Your task to perform on an android device: change the clock display to analog Image 0: 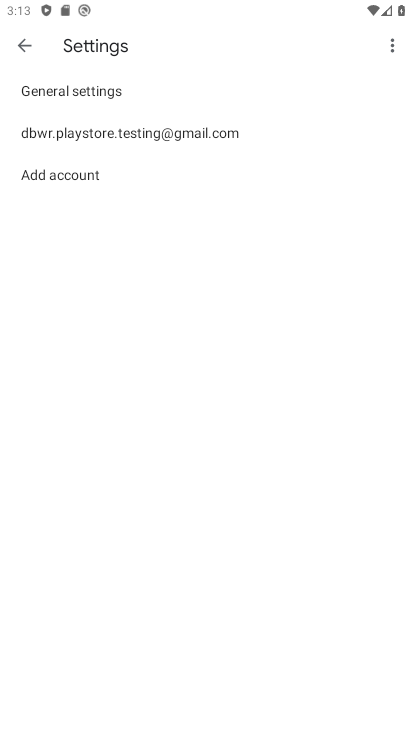
Step 0: press home button
Your task to perform on an android device: change the clock display to analog Image 1: 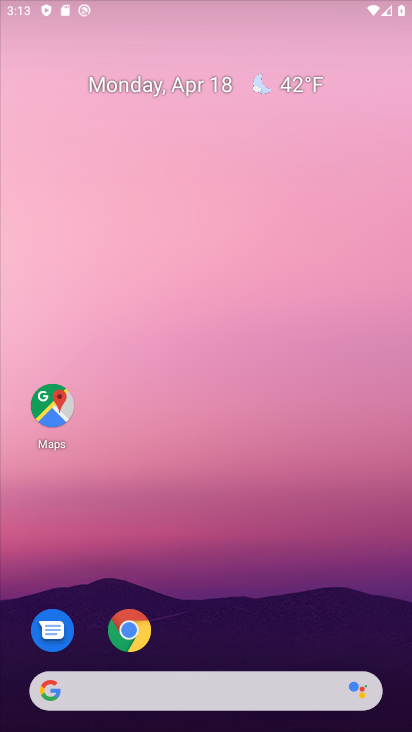
Step 1: drag from (252, 592) to (308, 329)
Your task to perform on an android device: change the clock display to analog Image 2: 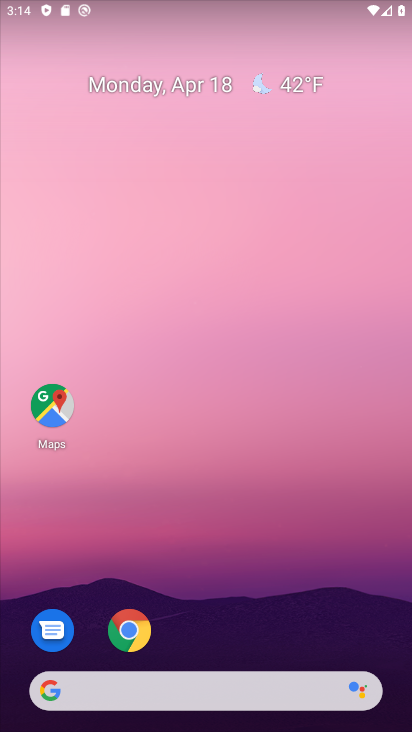
Step 2: drag from (295, 572) to (344, 229)
Your task to perform on an android device: change the clock display to analog Image 3: 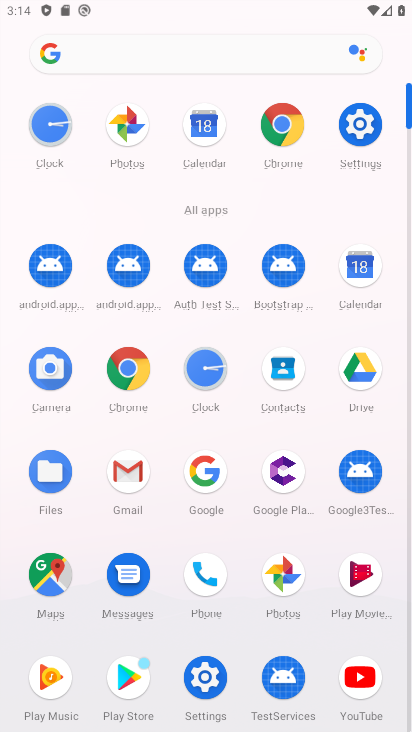
Step 3: click (36, 119)
Your task to perform on an android device: change the clock display to analog Image 4: 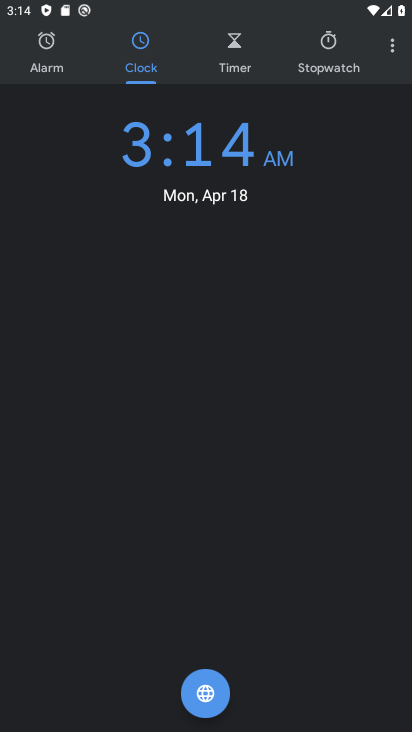
Step 4: click (388, 51)
Your task to perform on an android device: change the clock display to analog Image 5: 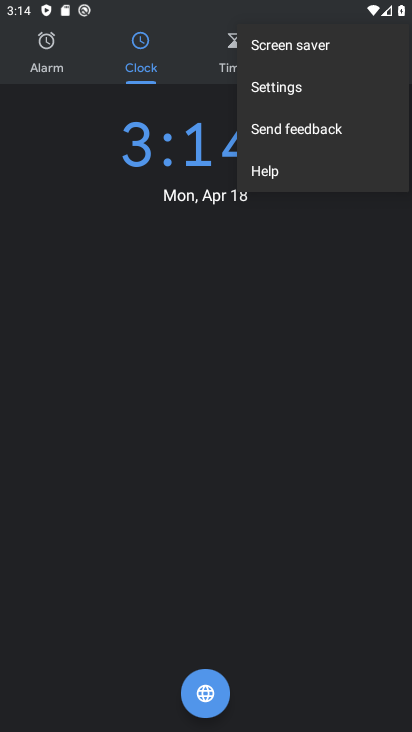
Step 5: click (290, 81)
Your task to perform on an android device: change the clock display to analog Image 6: 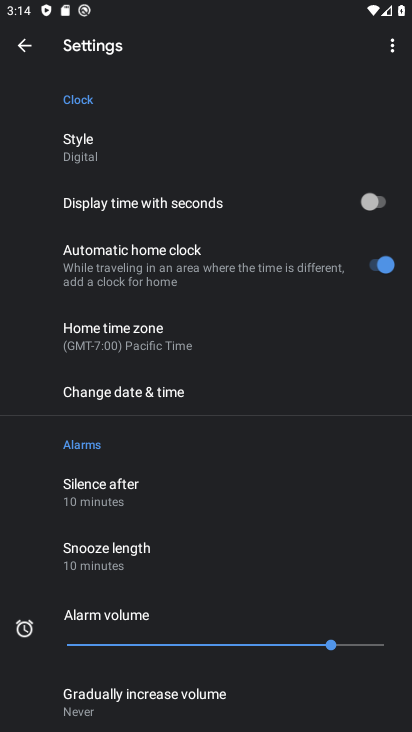
Step 6: click (129, 159)
Your task to perform on an android device: change the clock display to analog Image 7: 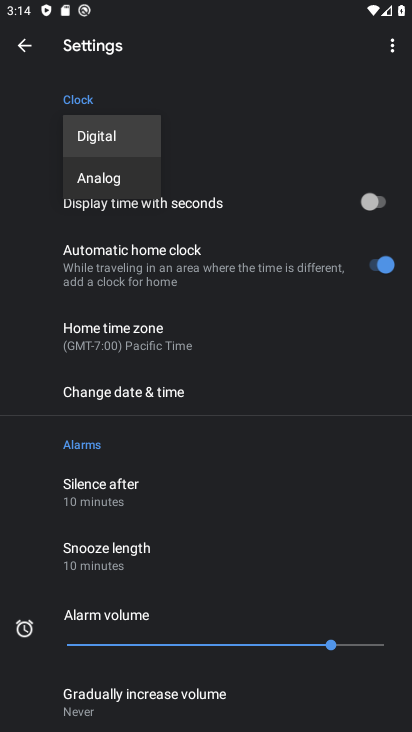
Step 7: click (138, 178)
Your task to perform on an android device: change the clock display to analog Image 8: 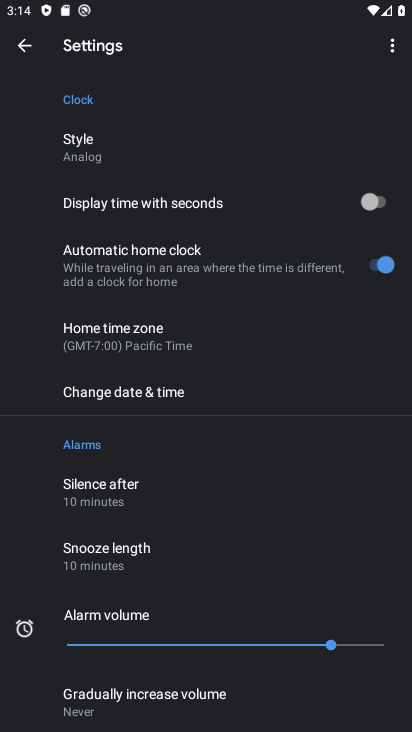
Step 8: task complete